Your task to perform on an android device: toggle show notifications on the lock screen Image 0: 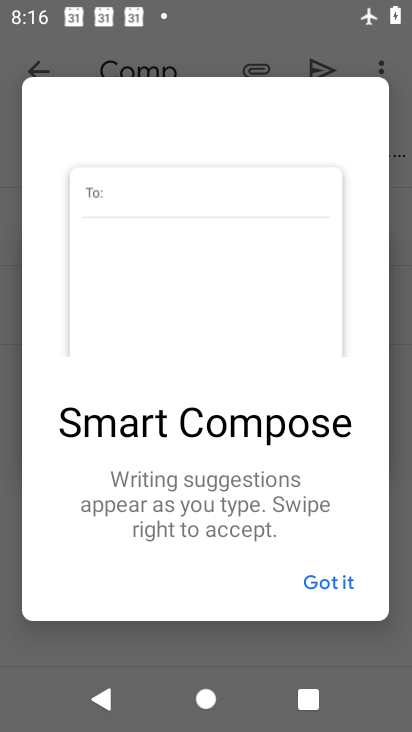
Step 0: press home button
Your task to perform on an android device: toggle show notifications on the lock screen Image 1: 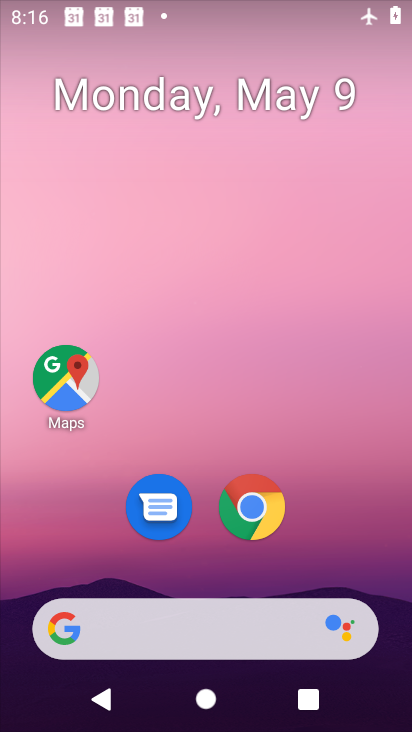
Step 1: drag from (199, 588) to (204, 0)
Your task to perform on an android device: toggle show notifications on the lock screen Image 2: 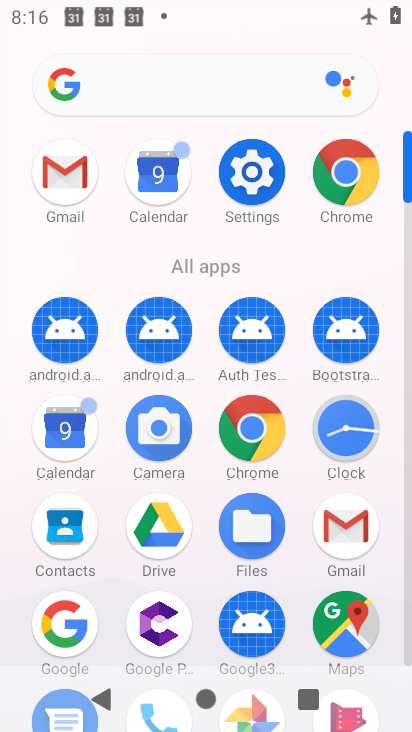
Step 2: click (239, 170)
Your task to perform on an android device: toggle show notifications on the lock screen Image 3: 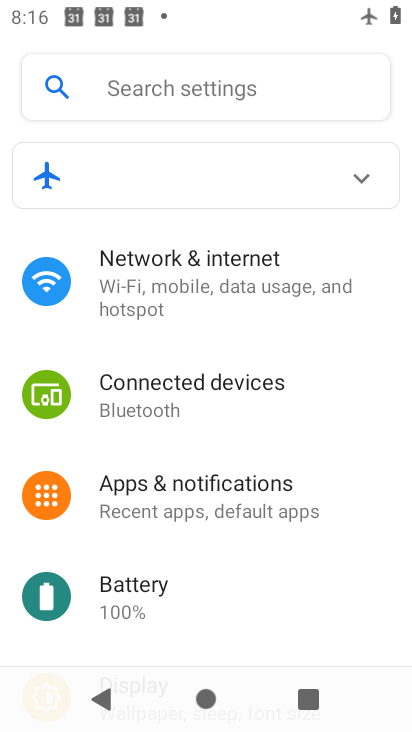
Step 3: click (200, 500)
Your task to perform on an android device: toggle show notifications on the lock screen Image 4: 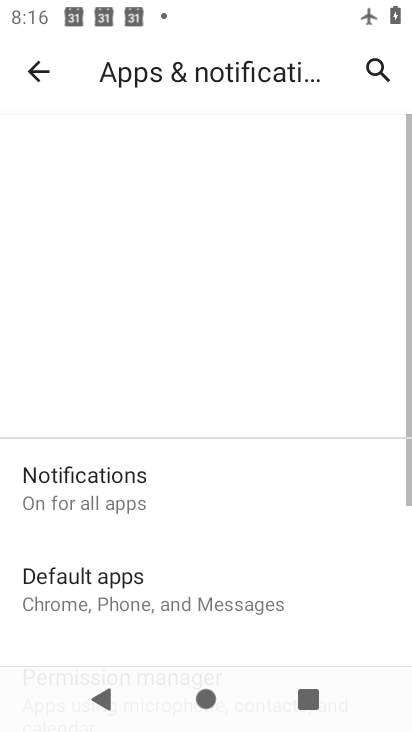
Step 4: drag from (199, 499) to (161, 137)
Your task to perform on an android device: toggle show notifications on the lock screen Image 5: 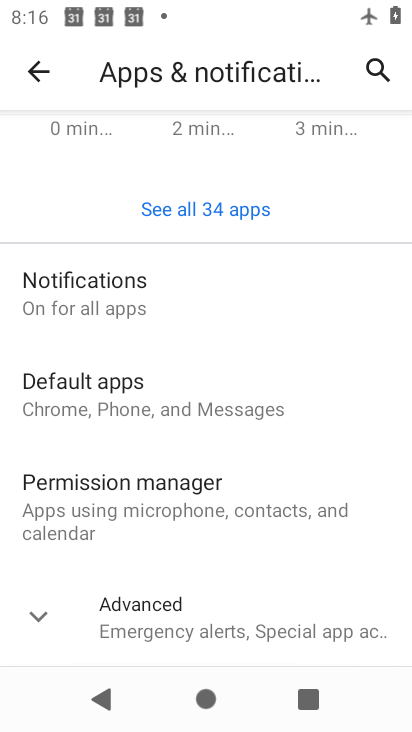
Step 5: click (157, 296)
Your task to perform on an android device: toggle show notifications on the lock screen Image 6: 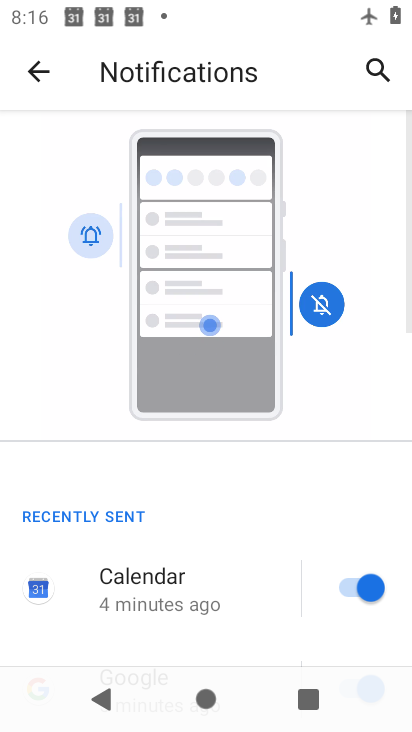
Step 6: drag from (192, 549) to (183, 32)
Your task to perform on an android device: toggle show notifications on the lock screen Image 7: 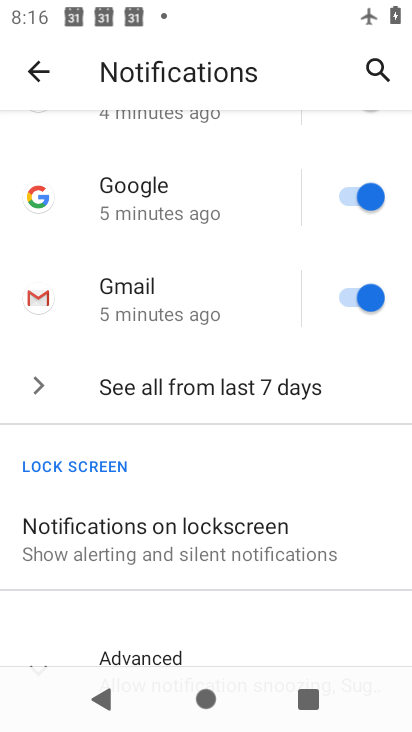
Step 7: click (156, 542)
Your task to perform on an android device: toggle show notifications on the lock screen Image 8: 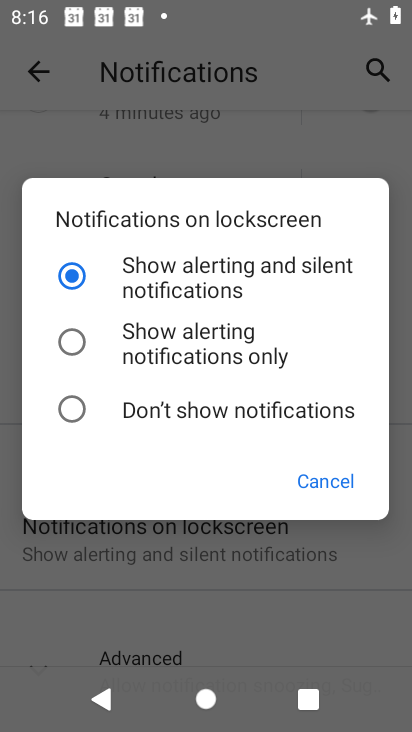
Step 8: click (144, 347)
Your task to perform on an android device: toggle show notifications on the lock screen Image 9: 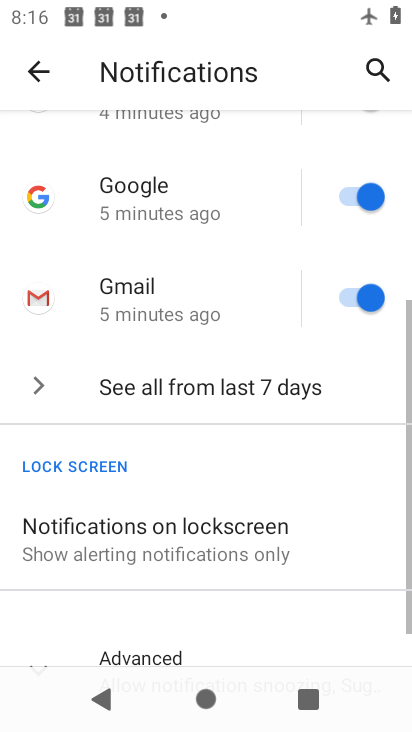
Step 9: task complete